Your task to perform on an android device: open chrome privacy settings Image 0: 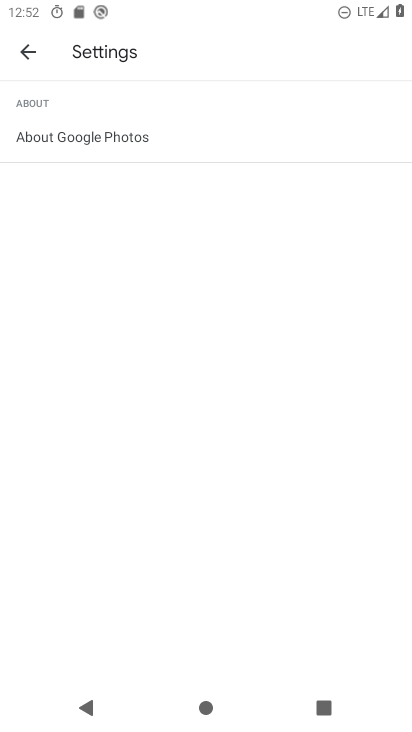
Step 0: press home button
Your task to perform on an android device: open chrome privacy settings Image 1: 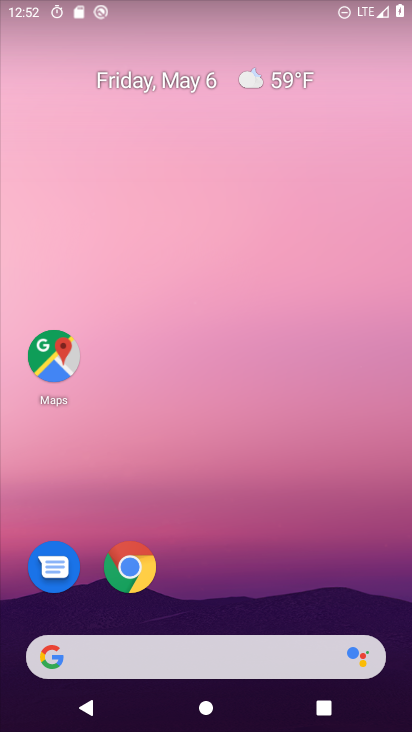
Step 1: click (135, 573)
Your task to perform on an android device: open chrome privacy settings Image 2: 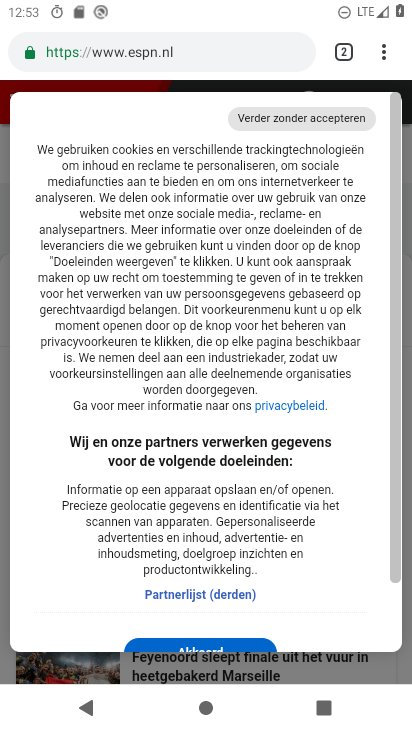
Step 2: drag from (387, 51) to (200, 617)
Your task to perform on an android device: open chrome privacy settings Image 3: 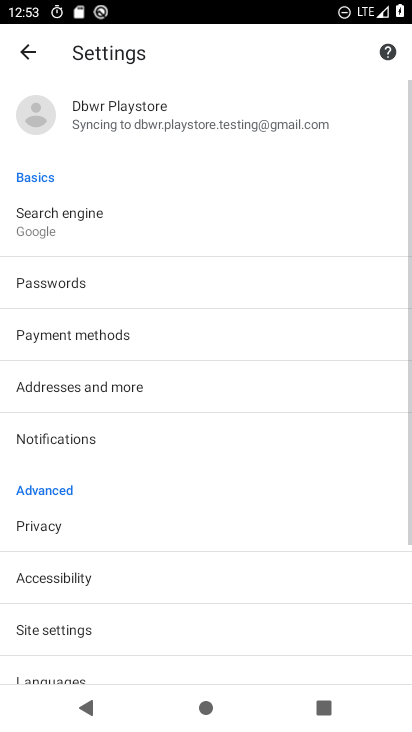
Step 3: click (35, 527)
Your task to perform on an android device: open chrome privacy settings Image 4: 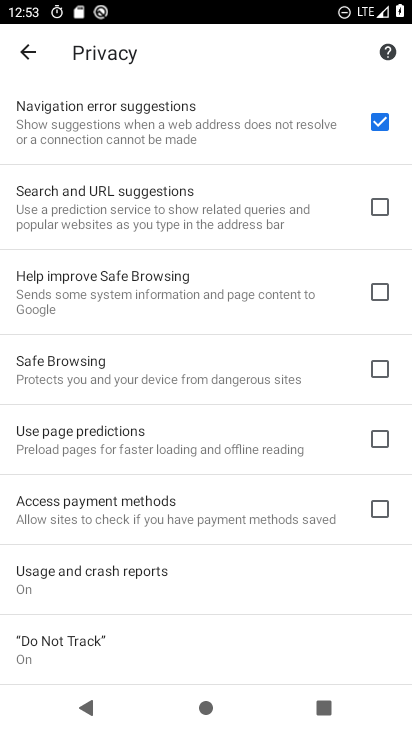
Step 4: task complete